Your task to perform on an android device: Open calendar and show me the third week of next month Image 0: 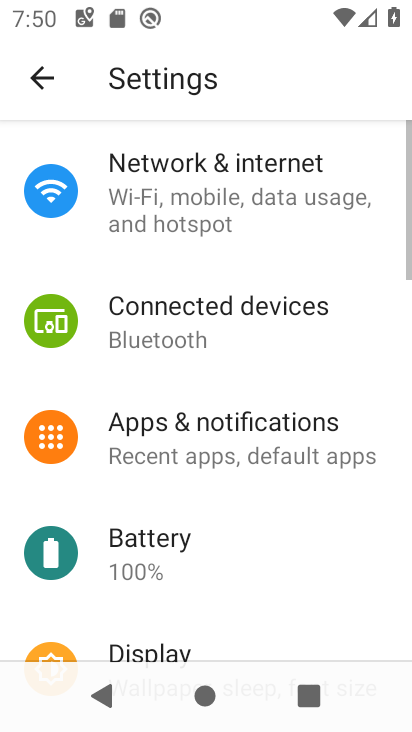
Step 0: press back button
Your task to perform on an android device: Open calendar and show me the third week of next month Image 1: 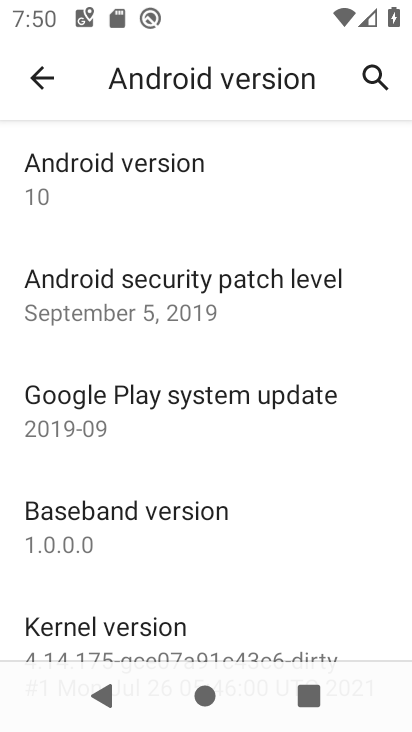
Step 1: press back button
Your task to perform on an android device: Open calendar and show me the third week of next month Image 2: 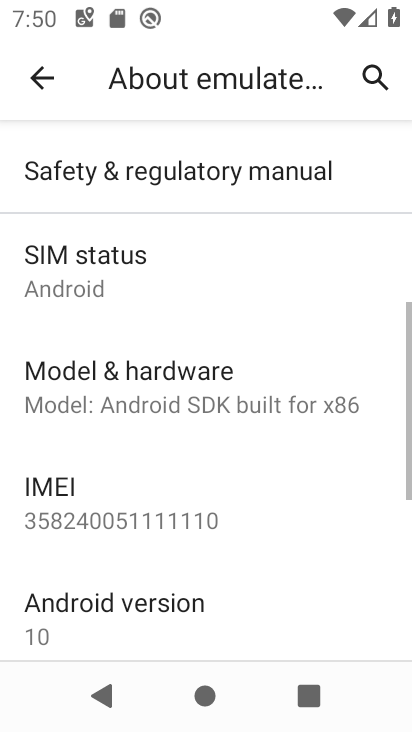
Step 2: press back button
Your task to perform on an android device: Open calendar and show me the third week of next month Image 3: 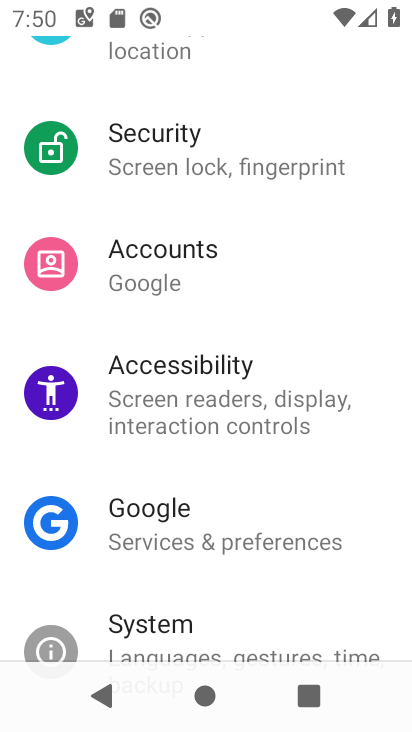
Step 3: press back button
Your task to perform on an android device: Open calendar and show me the third week of next month Image 4: 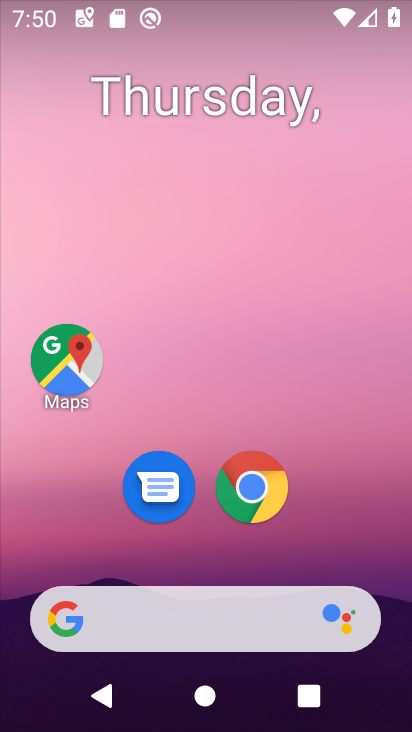
Step 4: drag from (190, 546) to (271, 14)
Your task to perform on an android device: Open calendar and show me the third week of next month Image 5: 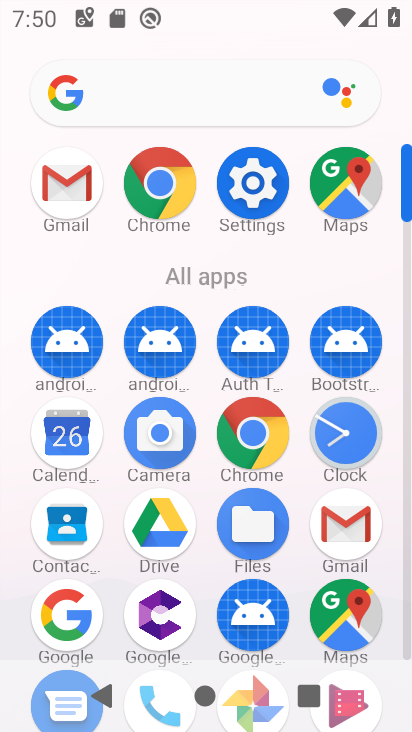
Step 5: click (62, 437)
Your task to perform on an android device: Open calendar and show me the third week of next month Image 6: 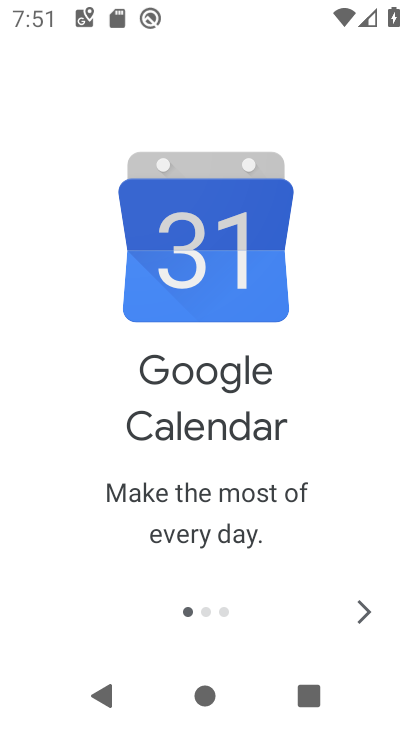
Step 6: click (363, 604)
Your task to perform on an android device: Open calendar and show me the third week of next month Image 7: 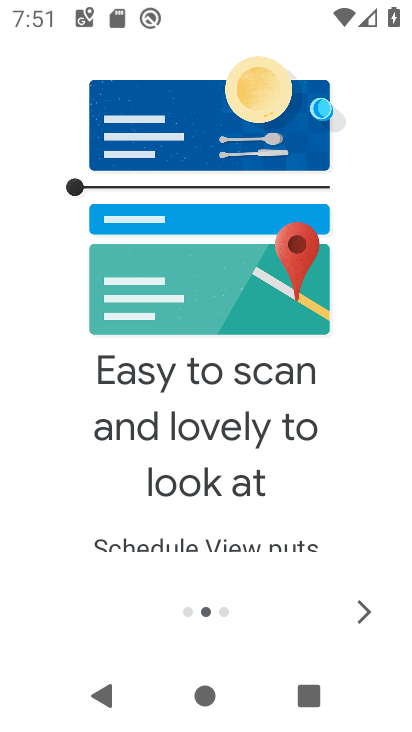
Step 7: click (363, 604)
Your task to perform on an android device: Open calendar and show me the third week of next month Image 8: 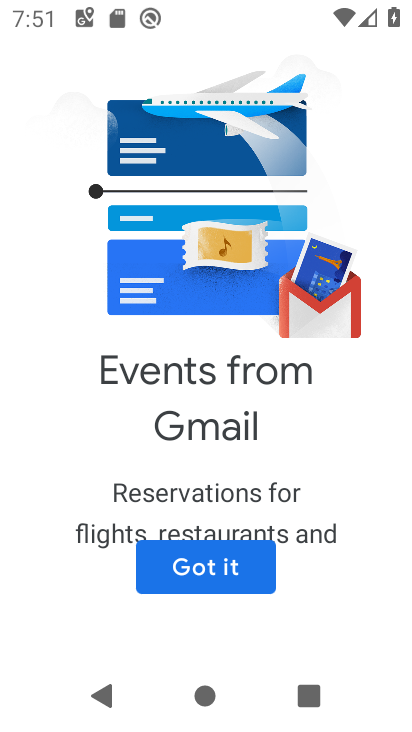
Step 8: click (217, 572)
Your task to perform on an android device: Open calendar and show me the third week of next month Image 9: 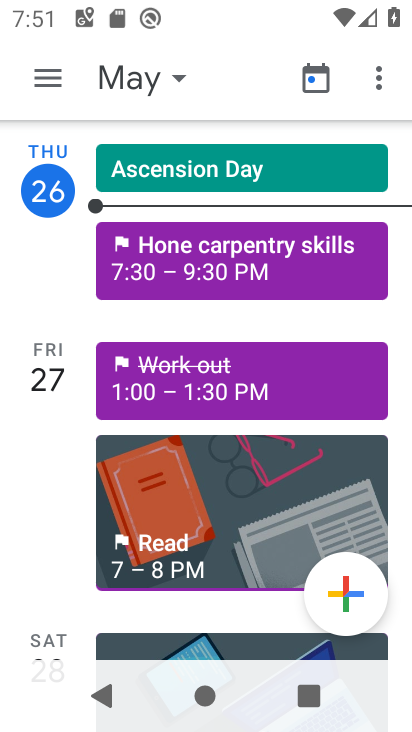
Step 9: click (173, 81)
Your task to perform on an android device: Open calendar and show me the third week of next month Image 10: 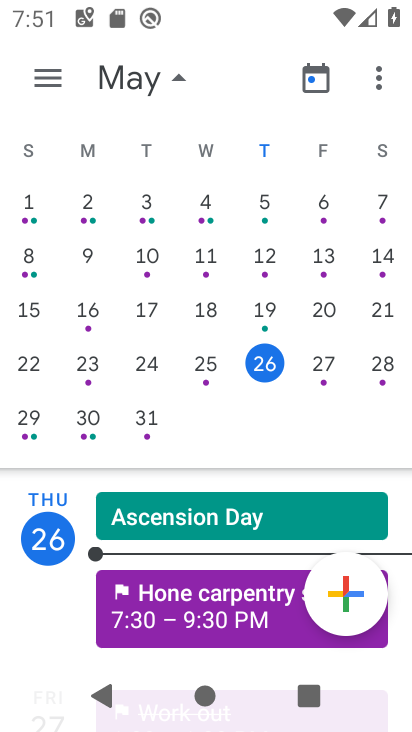
Step 10: drag from (360, 297) to (2, 298)
Your task to perform on an android device: Open calendar and show me the third week of next month Image 11: 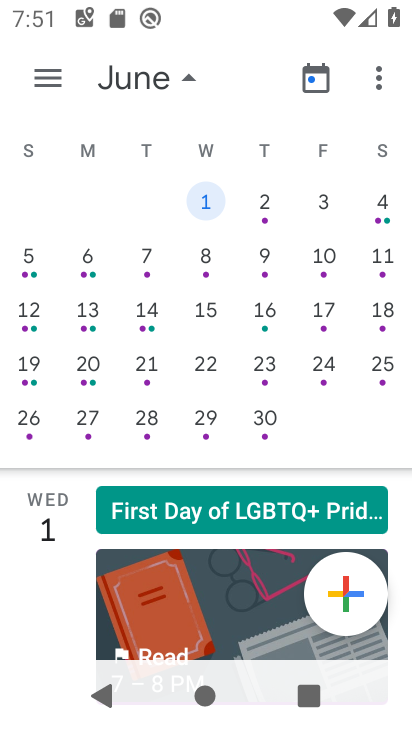
Step 11: click (87, 308)
Your task to perform on an android device: Open calendar and show me the third week of next month Image 12: 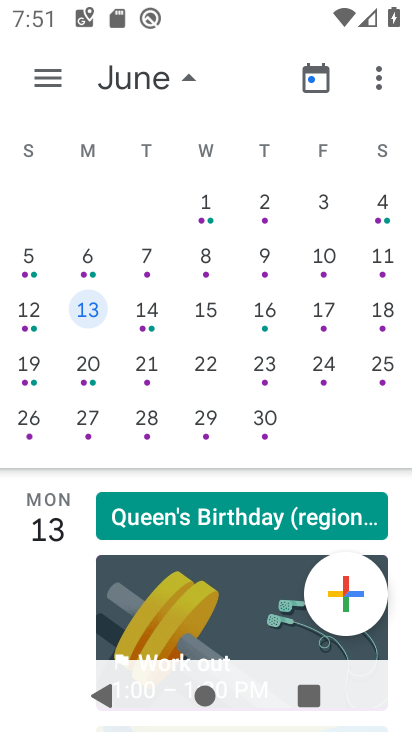
Step 12: task complete